Your task to perform on an android device: Open settings Image 0: 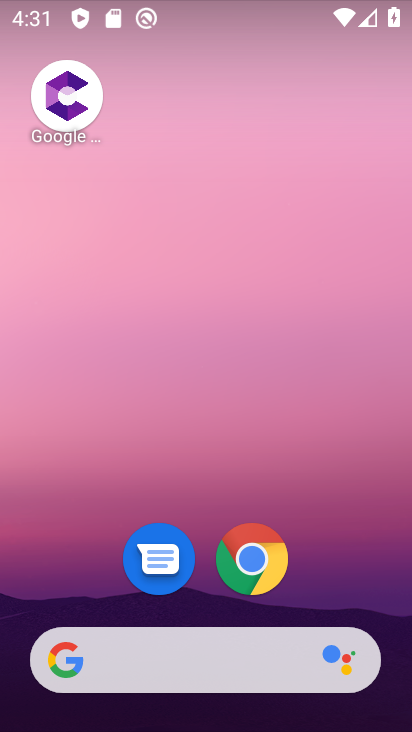
Step 0: drag from (338, 546) to (216, 33)
Your task to perform on an android device: Open settings Image 1: 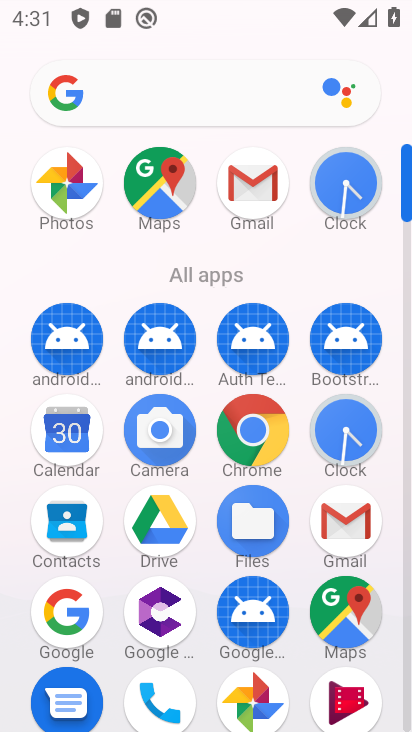
Step 1: drag from (201, 530) to (162, 51)
Your task to perform on an android device: Open settings Image 2: 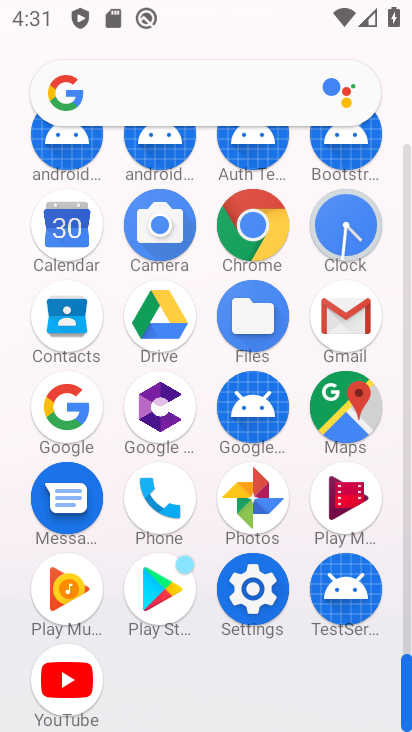
Step 2: click (249, 591)
Your task to perform on an android device: Open settings Image 3: 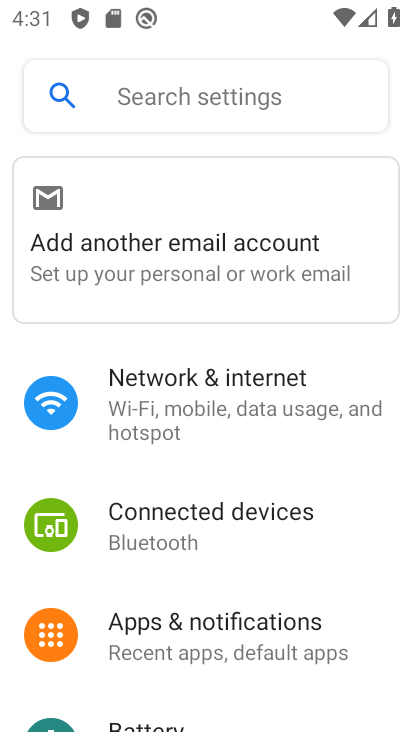
Step 3: task complete